Your task to perform on an android device: check battery use Image 0: 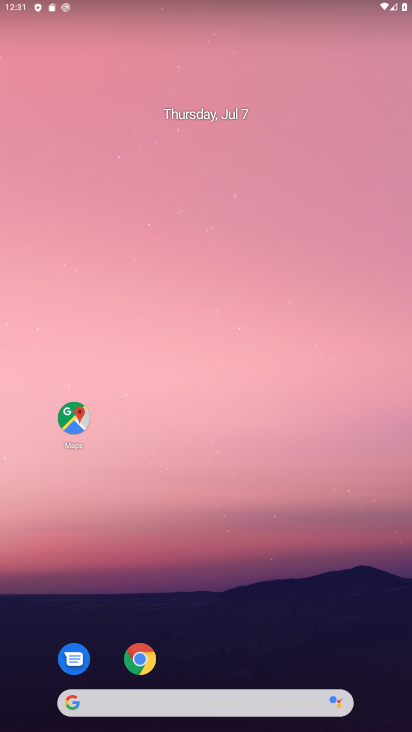
Step 0: drag from (269, 570) to (261, 143)
Your task to perform on an android device: check battery use Image 1: 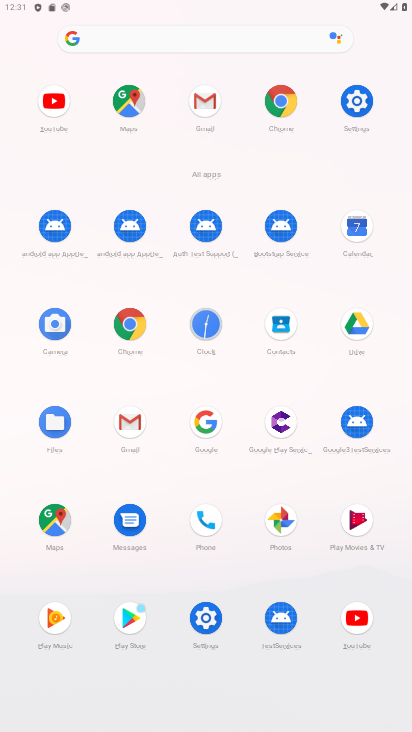
Step 1: click (354, 102)
Your task to perform on an android device: check battery use Image 2: 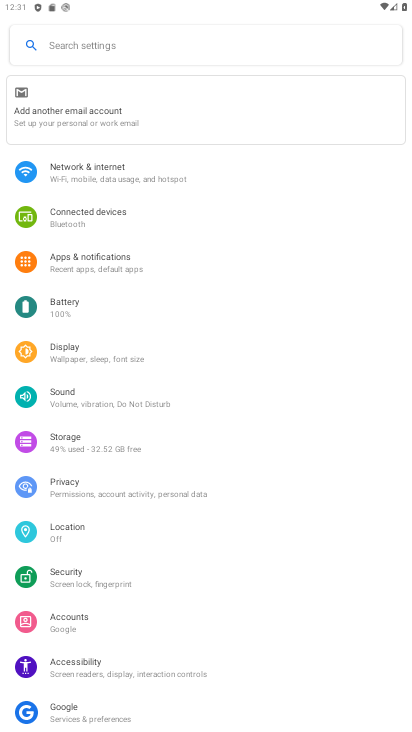
Step 2: click (59, 302)
Your task to perform on an android device: check battery use Image 3: 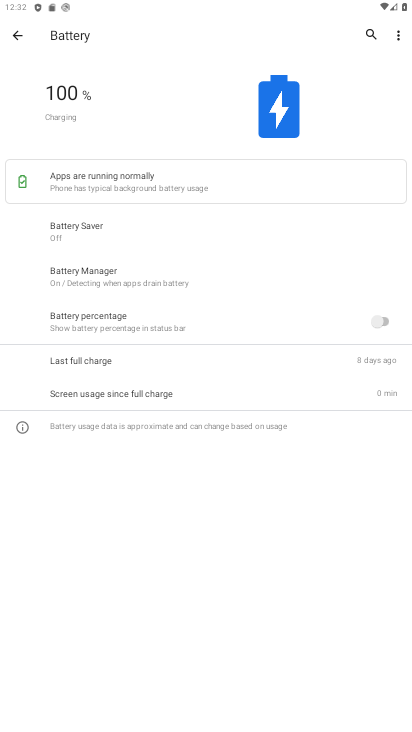
Step 3: task complete